Your task to perform on an android device: Open sound settings Image 0: 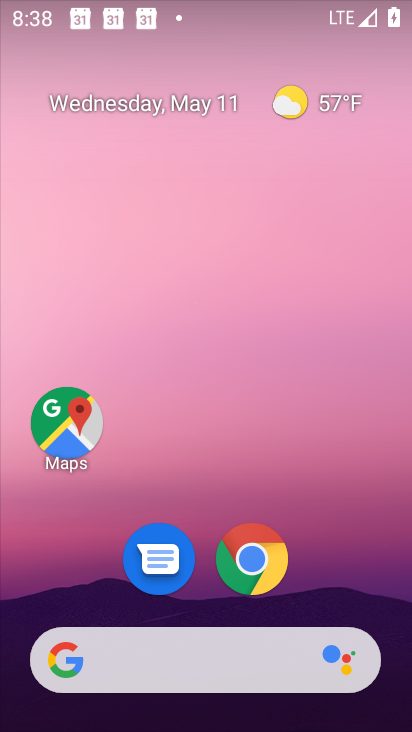
Step 0: press home button
Your task to perform on an android device: Open sound settings Image 1: 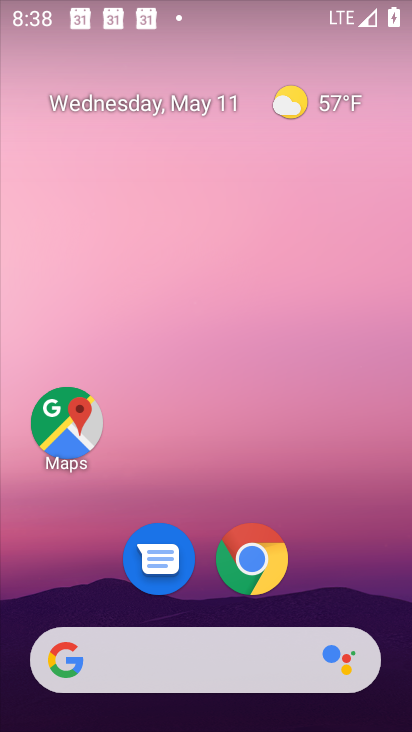
Step 1: drag from (340, 571) to (220, 110)
Your task to perform on an android device: Open sound settings Image 2: 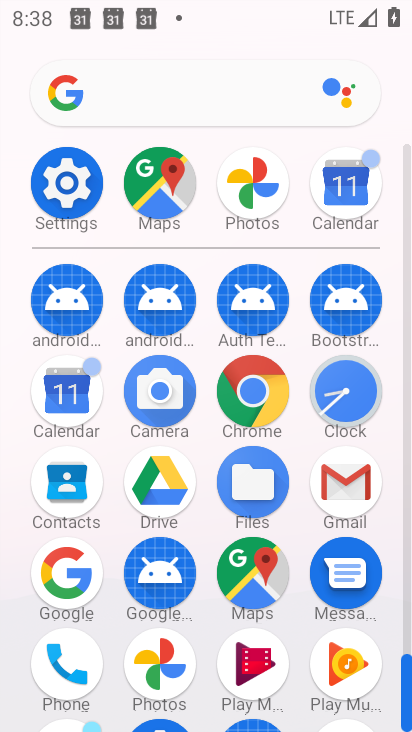
Step 2: click (40, 201)
Your task to perform on an android device: Open sound settings Image 3: 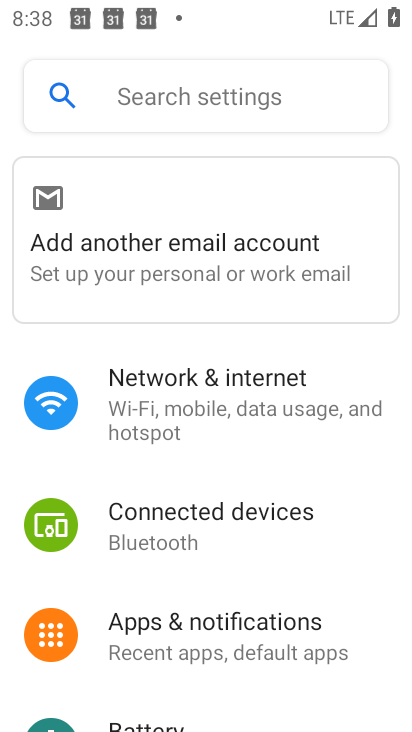
Step 3: drag from (227, 555) to (241, 69)
Your task to perform on an android device: Open sound settings Image 4: 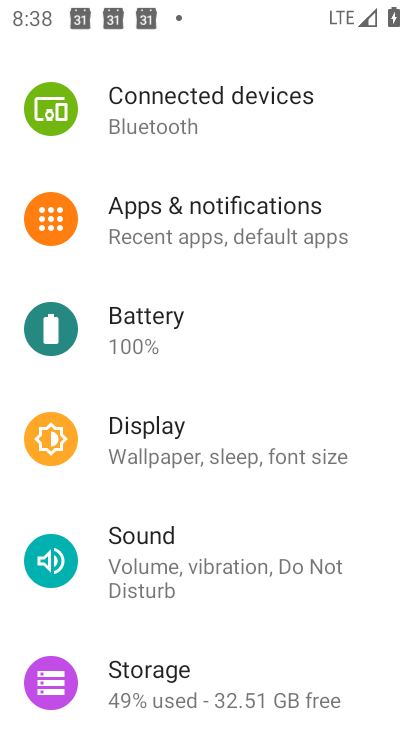
Step 4: click (244, 545)
Your task to perform on an android device: Open sound settings Image 5: 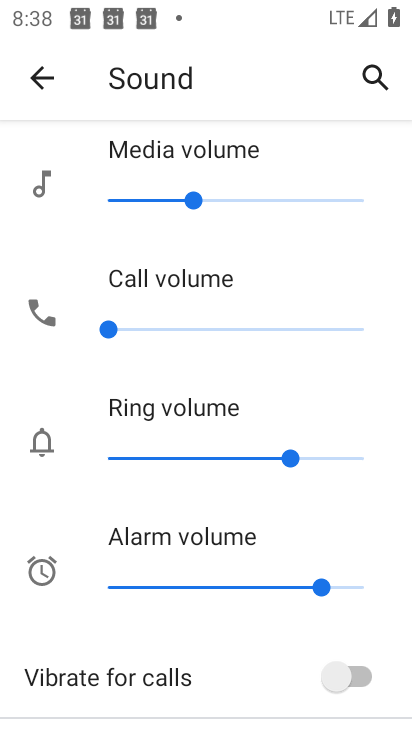
Step 5: task complete